Your task to perform on an android device: toggle location history Image 0: 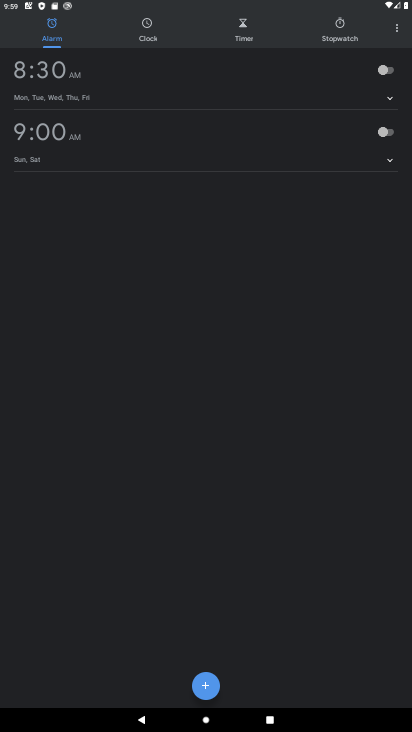
Step 0: press home button
Your task to perform on an android device: toggle location history Image 1: 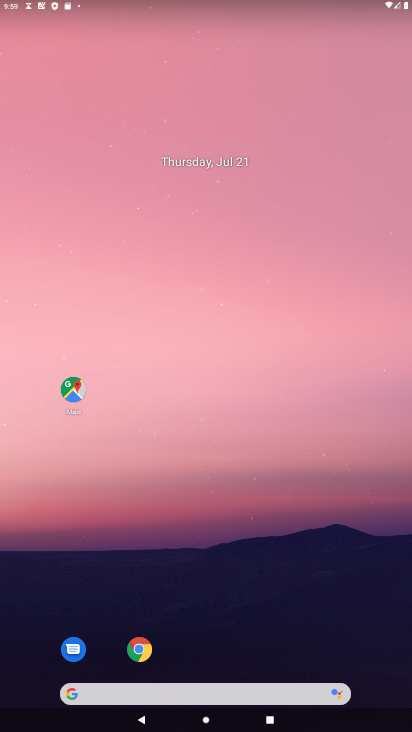
Step 1: drag from (218, 609) to (195, 10)
Your task to perform on an android device: toggle location history Image 2: 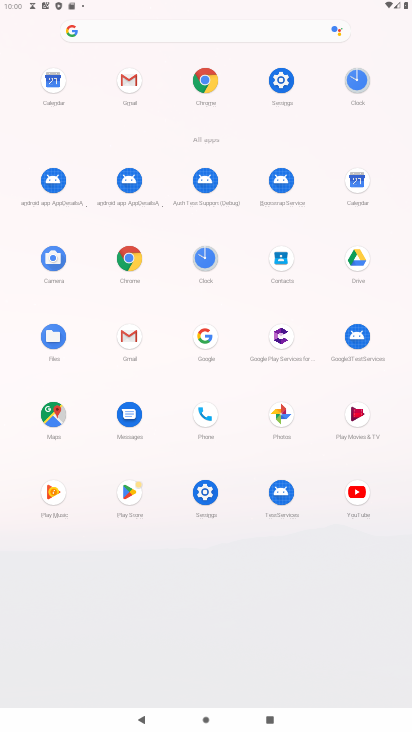
Step 2: click (202, 495)
Your task to perform on an android device: toggle location history Image 3: 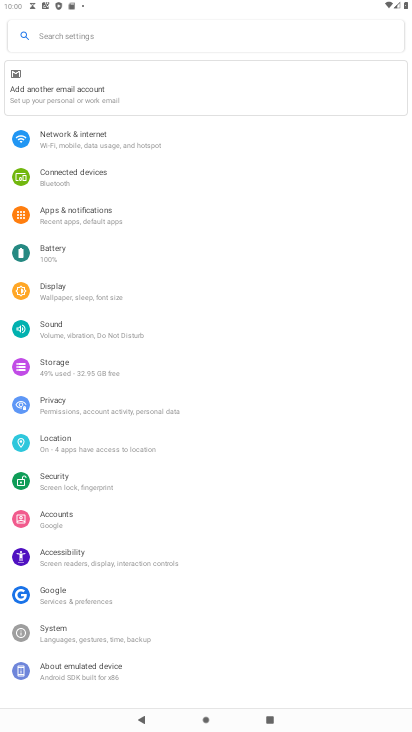
Step 3: click (99, 446)
Your task to perform on an android device: toggle location history Image 4: 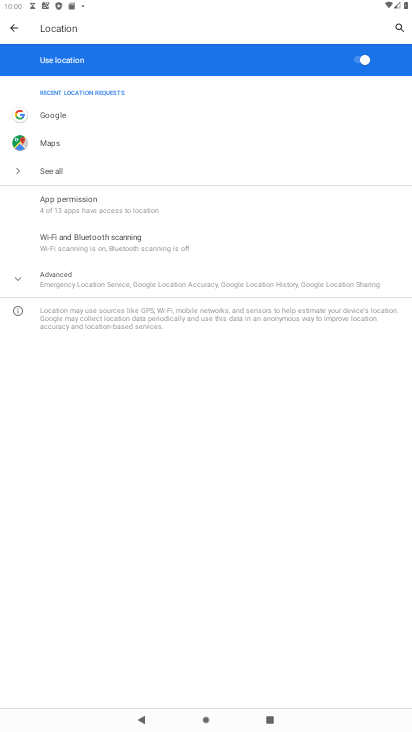
Step 4: click (104, 281)
Your task to perform on an android device: toggle location history Image 5: 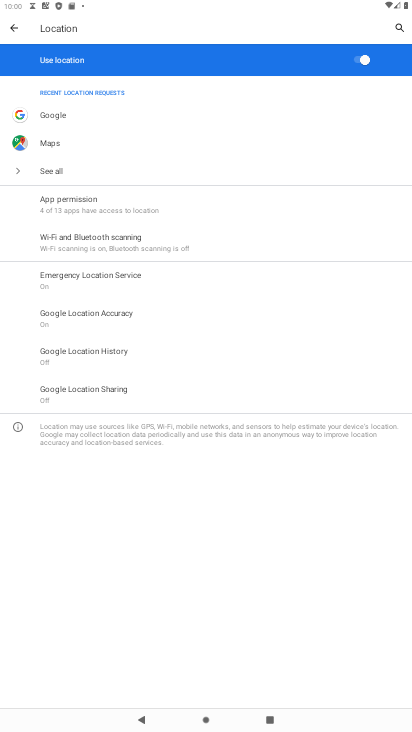
Step 5: click (127, 356)
Your task to perform on an android device: toggle location history Image 6: 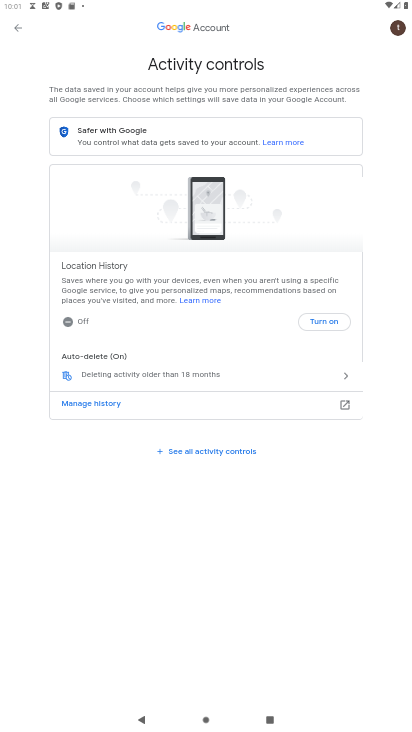
Step 6: click (333, 320)
Your task to perform on an android device: toggle location history Image 7: 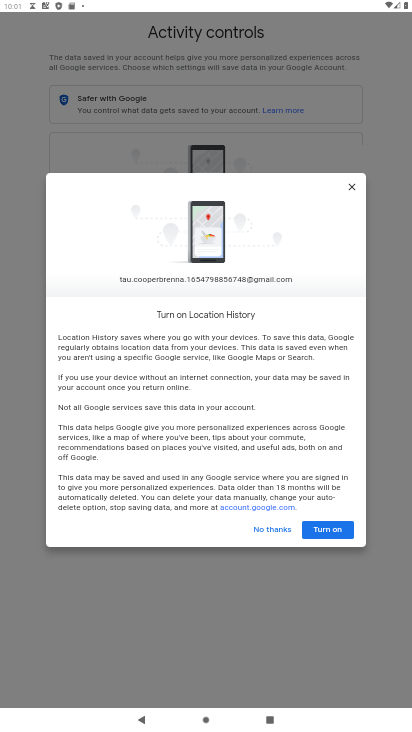
Step 7: click (335, 532)
Your task to perform on an android device: toggle location history Image 8: 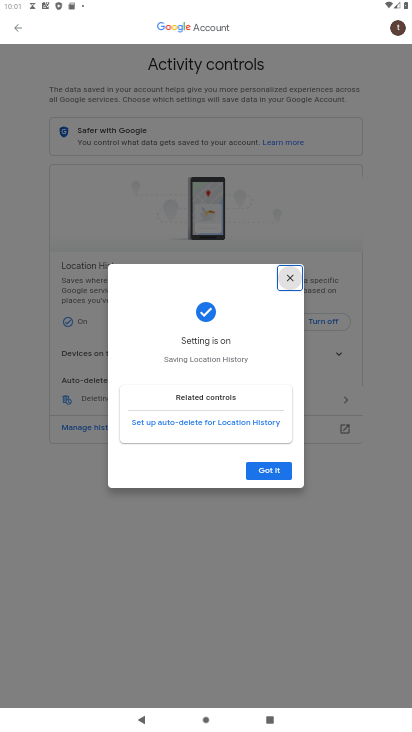
Step 8: click (268, 472)
Your task to perform on an android device: toggle location history Image 9: 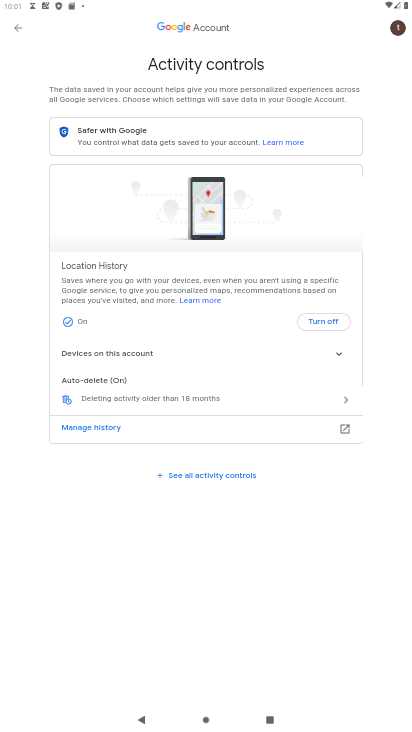
Step 9: task complete